Your task to perform on an android device: turn off airplane mode Image 0: 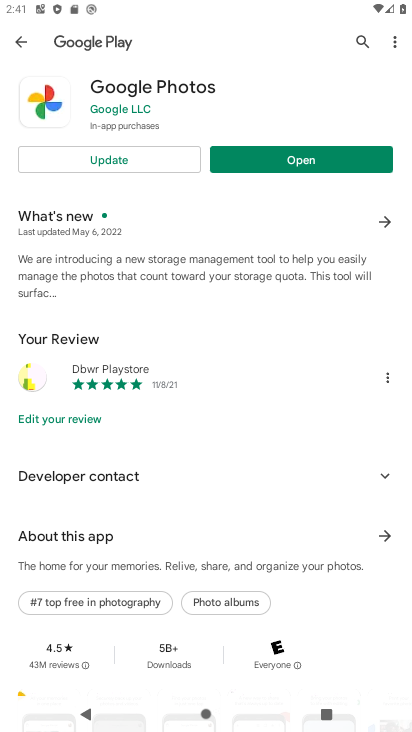
Step 0: press home button
Your task to perform on an android device: turn off airplane mode Image 1: 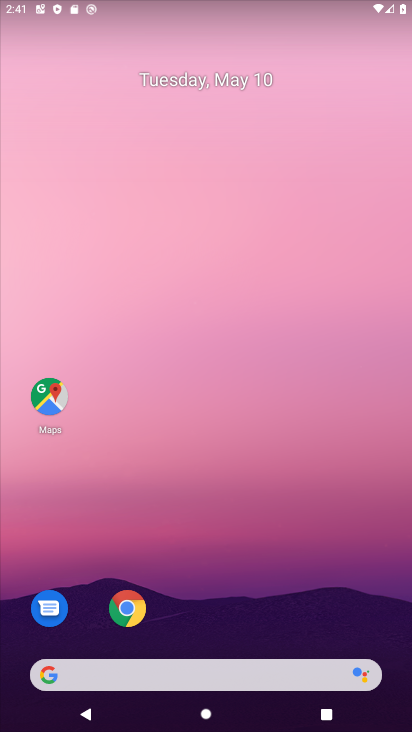
Step 1: drag from (232, 619) to (138, 17)
Your task to perform on an android device: turn off airplane mode Image 2: 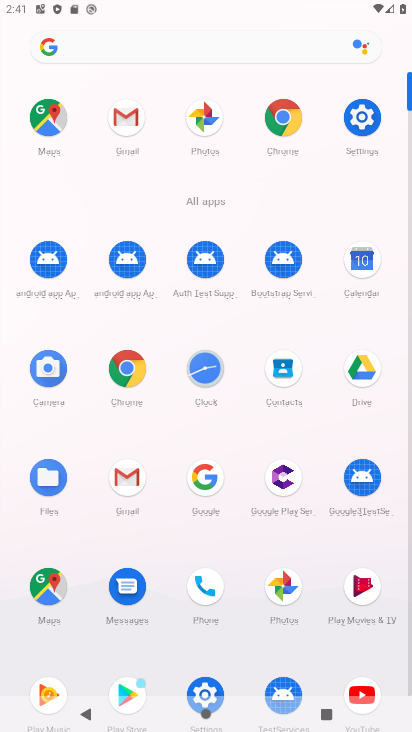
Step 2: click (368, 131)
Your task to perform on an android device: turn off airplane mode Image 3: 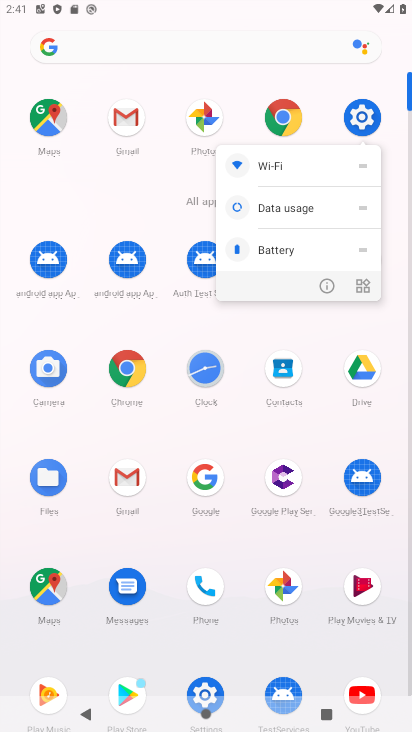
Step 3: click (369, 128)
Your task to perform on an android device: turn off airplane mode Image 4: 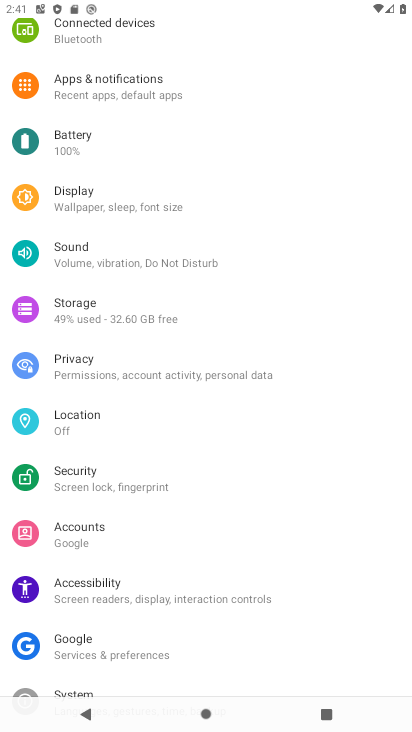
Step 4: drag from (179, 125) to (177, 590)
Your task to perform on an android device: turn off airplane mode Image 5: 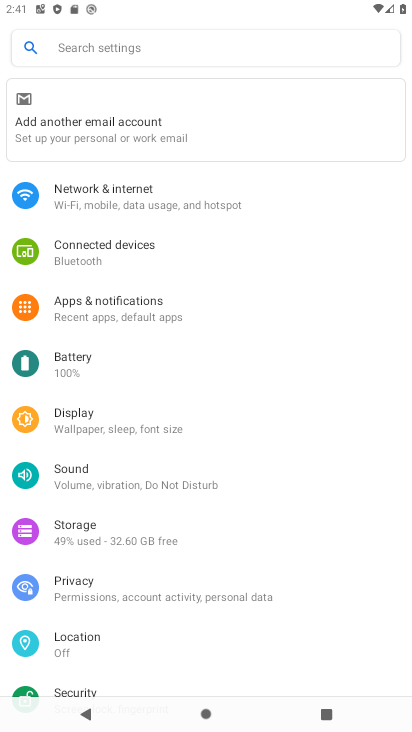
Step 5: click (139, 198)
Your task to perform on an android device: turn off airplane mode Image 6: 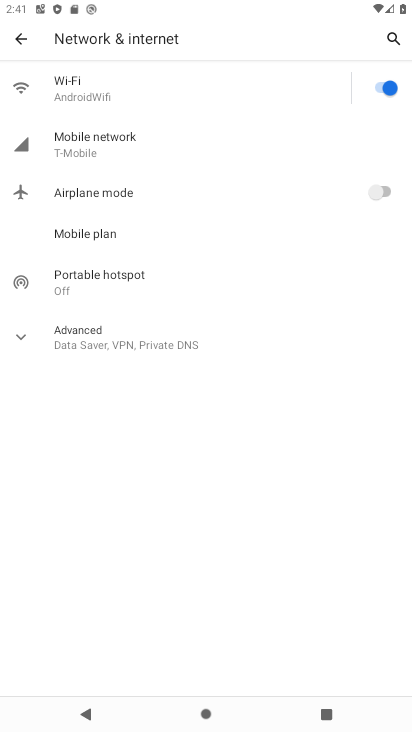
Step 6: task complete